Your task to perform on an android device: turn on airplane mode Image 0: 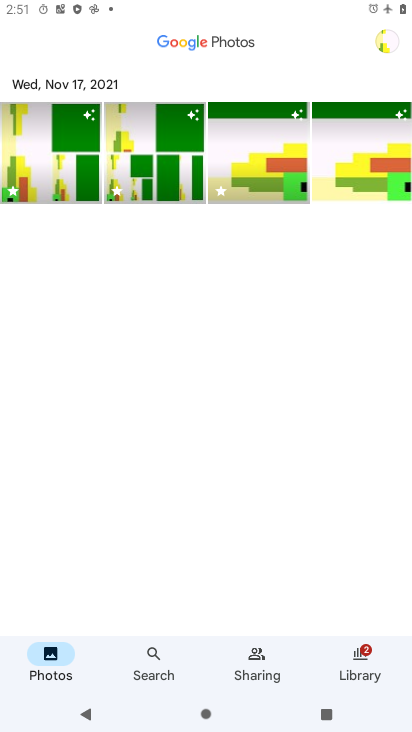
Step 0: press home button
Your task to perform on an android device: turn on airplane mode Image 1: 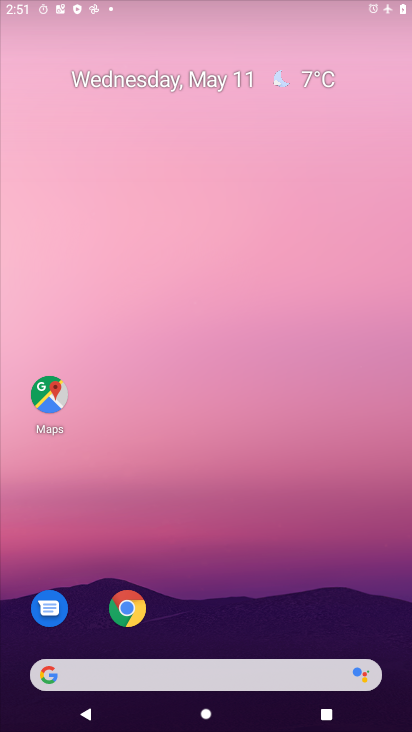
Step 1: drag from (224, 600) to (213, 107)
Your task to perform on an android device: turn on airplane mode Image 2: 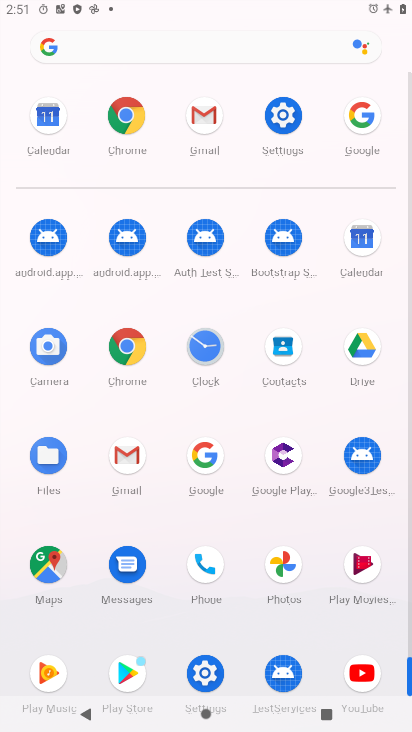
Step 2: click (283, 119)
Your task to perform on an android device: turn on airplane mode Image 3: 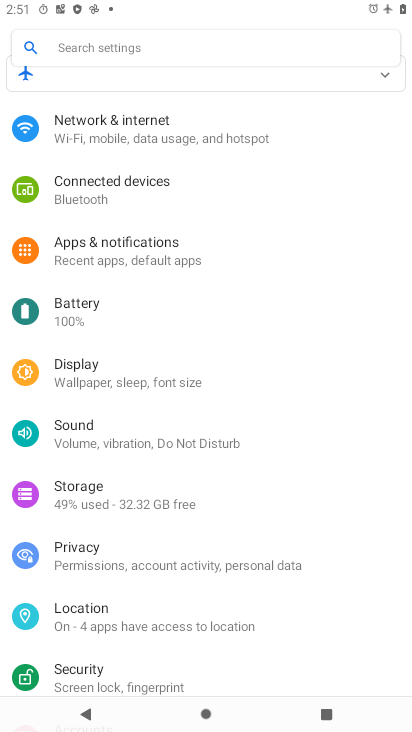
Step 3: click (156, 129)
Your task to perform on an android device: turn on airplane mode Image 4: 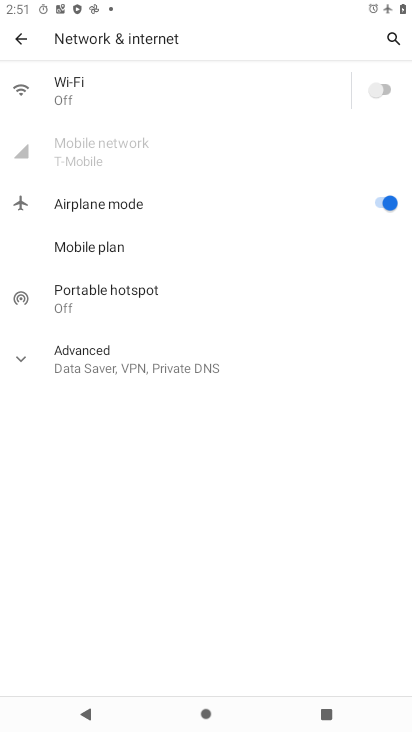
Step 4: task complete